Your task to perform on an android device: What's the weather going to be this weekend? Image 0: 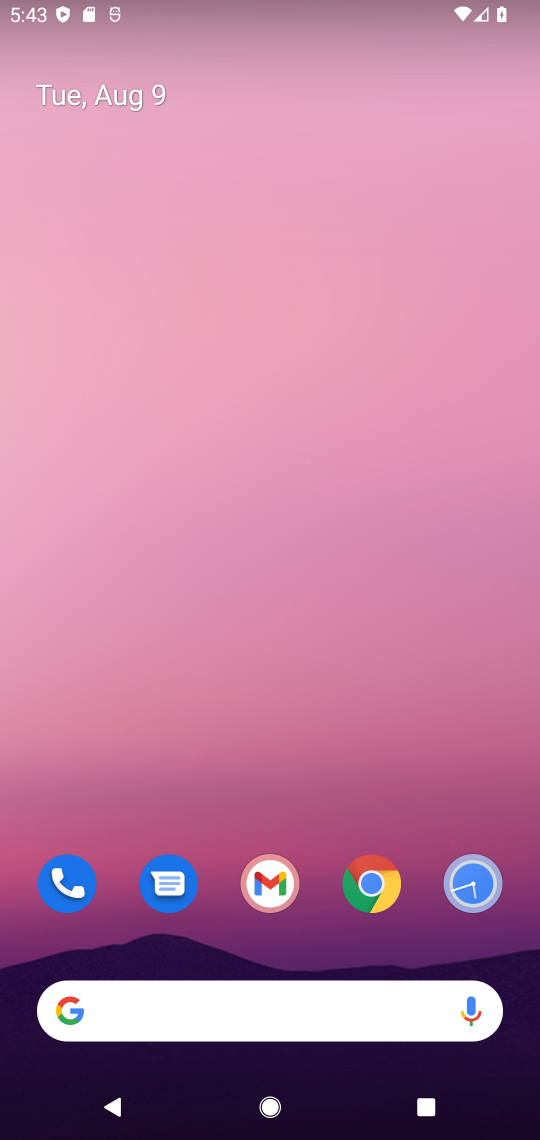
Step 0: drag from (268, 805) to (218, 257)
Your task to perform on an android device: What's the weather going to be this weekend? Image 1: 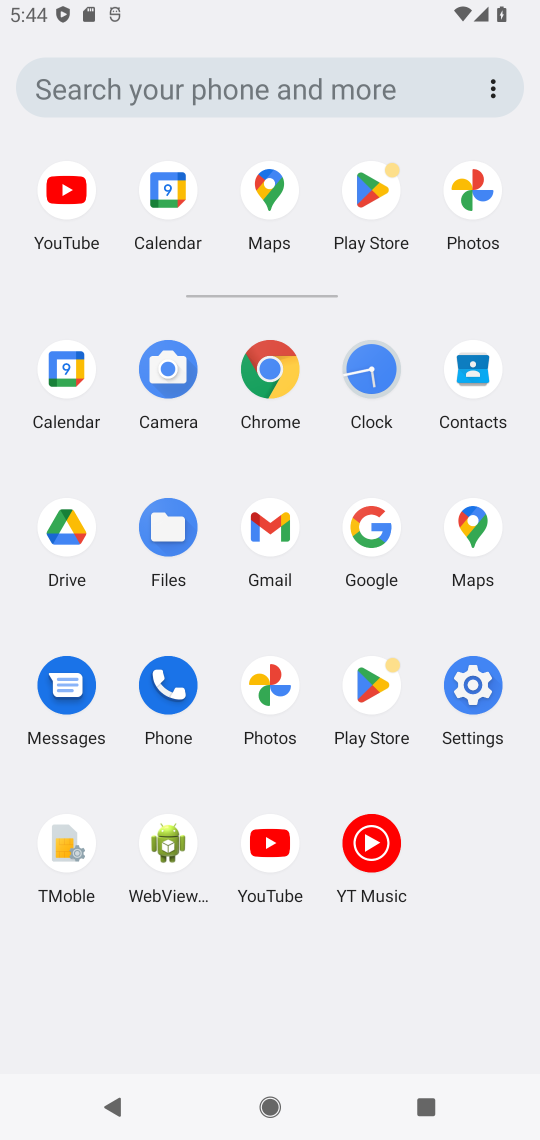
Step 1: click (357, 554)
Your task to perform on an android device: What's the weather going to be this weekend? Image 2: 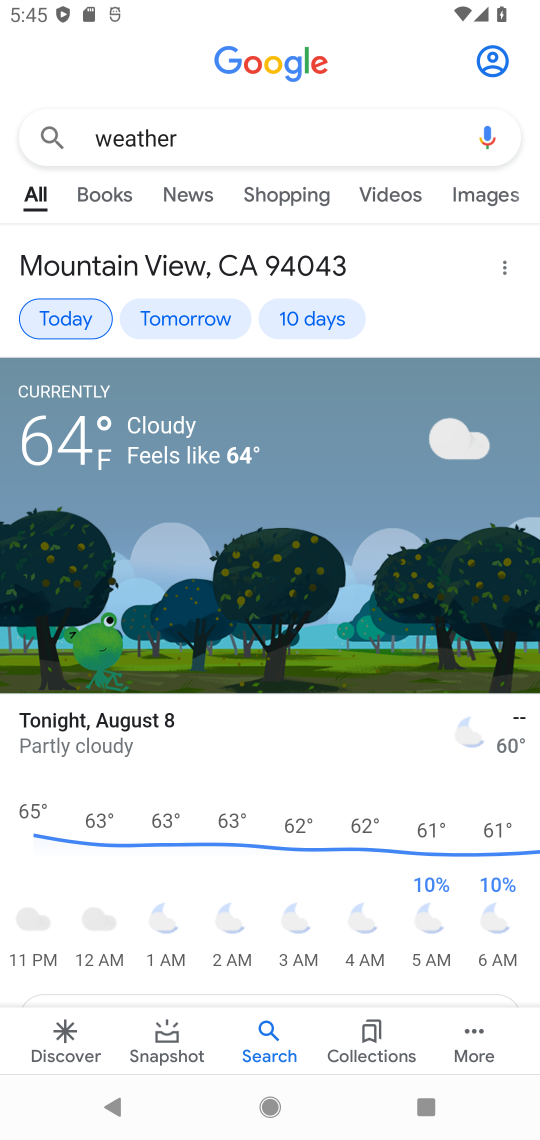
Step 2: click (288, 314)
Your task to perform on an android device: What's the weather going to be this weekend? Image 3: 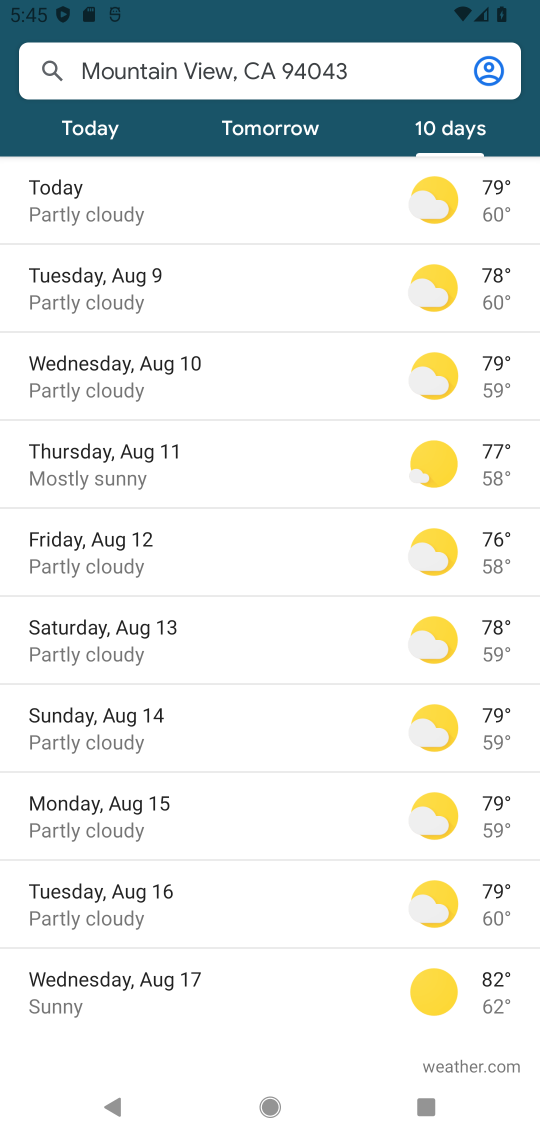
Step 3: task complete